Your task to perform on an android device: toggle javascript in the chrome app Image 0: 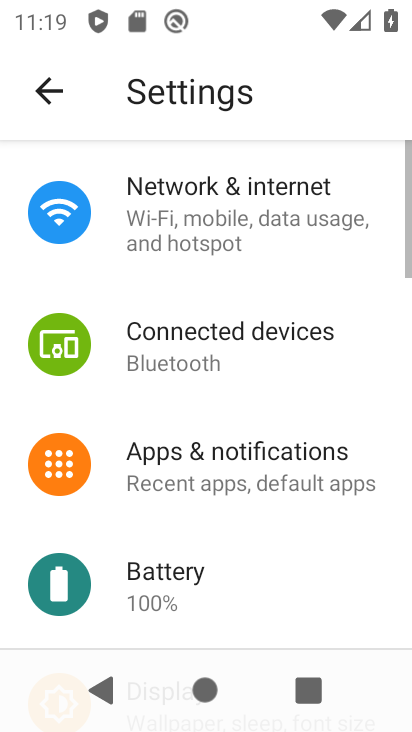
Step 0: press home button
Your task to perform on an android device: toggle javascript in the chrome app Image 1: 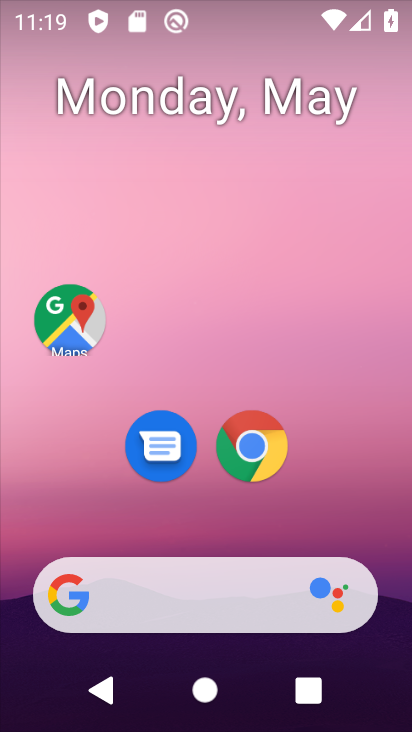
Step 1: click (251, 445)
Your task to perform on an android device: toggle javascript in the chrome app Image 2: 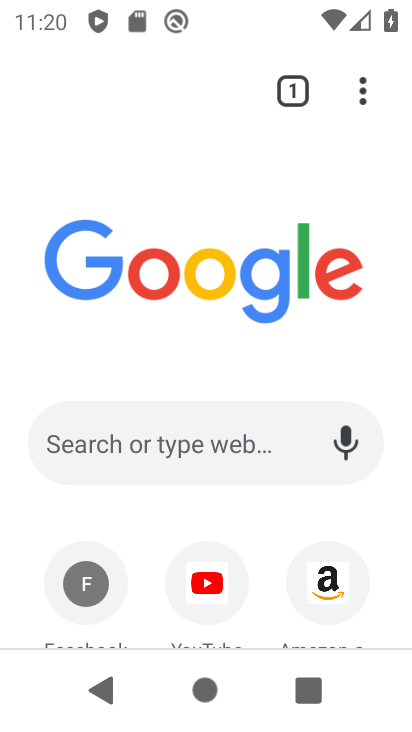
Step 2: click (363, 81)
Your task to perform on an android device: toggle javascript in the chrome app Image 3: 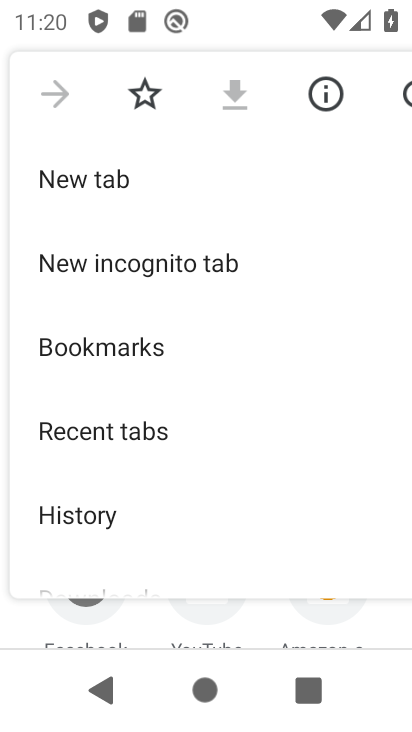
Step 3: drag from (220, 463) to (163, 173)
Your task to perform on an android device: toggle javascript in the chrome app Image 4: 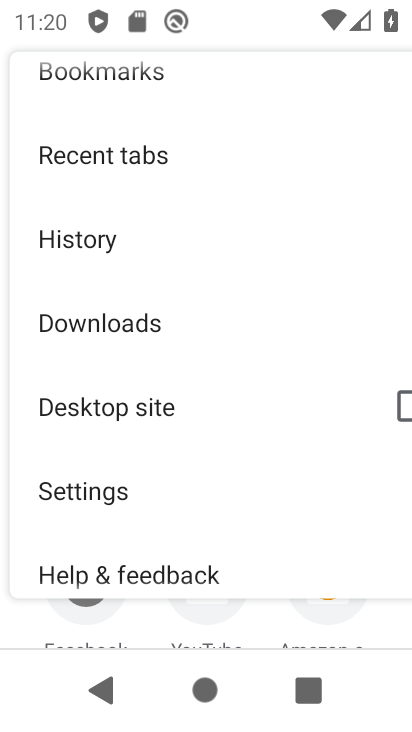
Step 4: click (99, 485)
Your task to perform on an android device: toggle javascript in the chrome app Image 5: 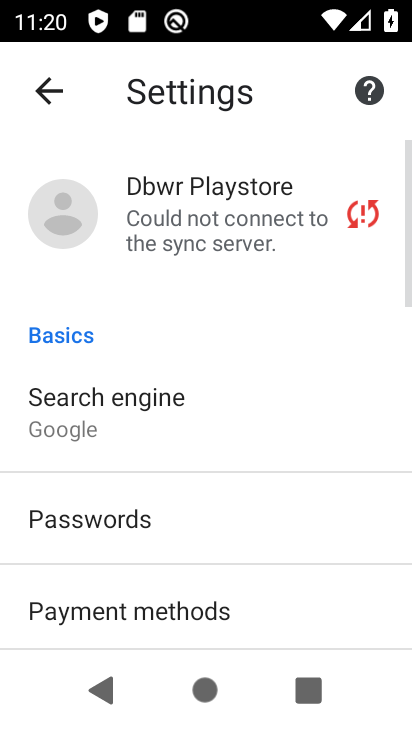
Step 5: drag from (229, 481) to (146, 101)
Your task to perform on an android device: toggle javascript in the chrome app Image 6: 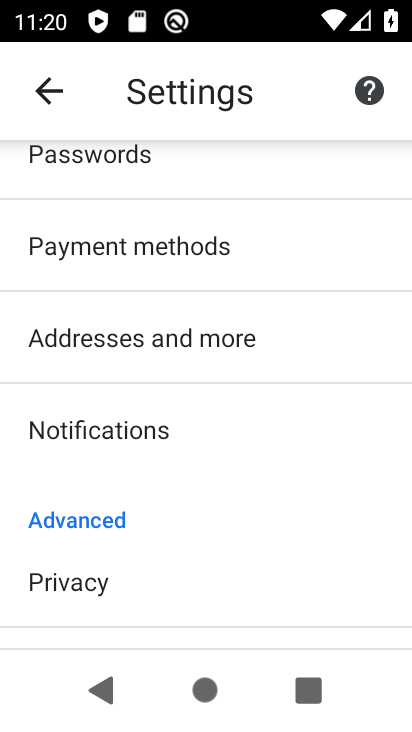
Step 6: drag from (251, 523) to (208, 319)
Your task to perform on an android device: toggle javascript in the chrome app Image 7: 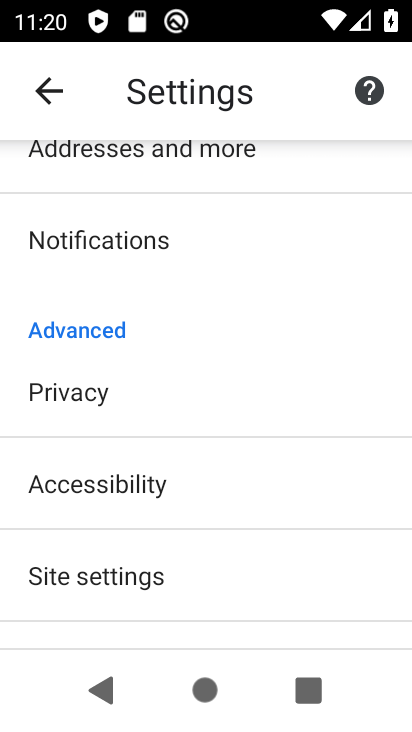
Step 7: drag from (197, 466) to (187, 271)
Your task to perform on an android device: toggle javascript in the chrome app Image 8: 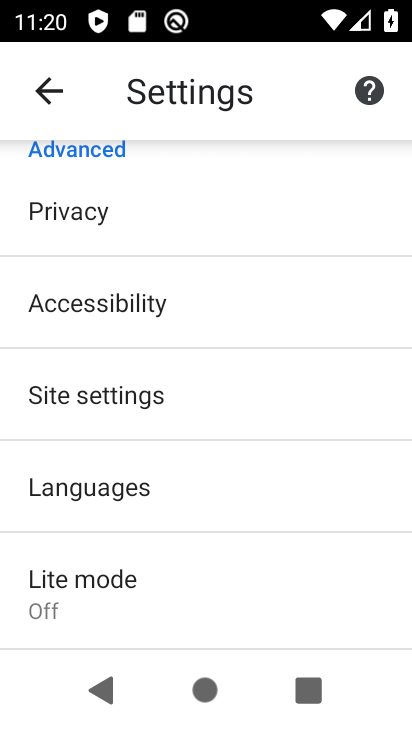
Step 8: drag from (206, 497) to (156, 298)
Your task to perform on an android device: toggle javascript in the chrome app Image 9: 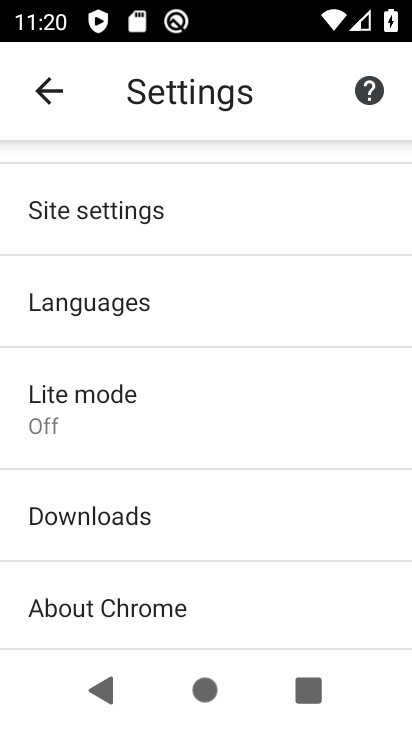
Step 9: click (105, 206)
Your task to perform on an android device: toggle javascript in the chrome app Image 10: 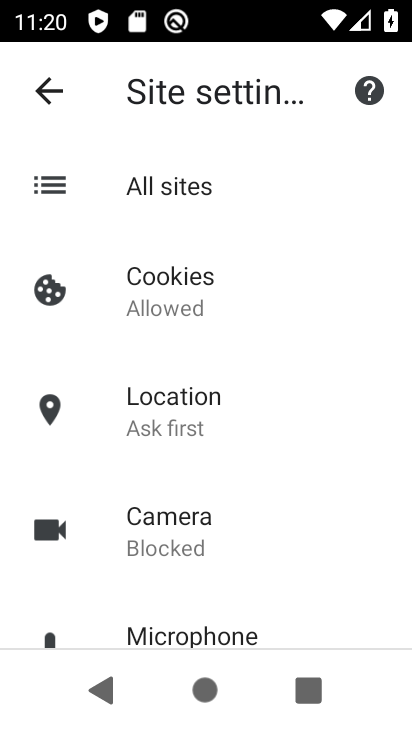
Step 10: drag from (271, 479) to (218, 141)
Your task to perform on an android device: toggle javascript in the chrome app Image 11: 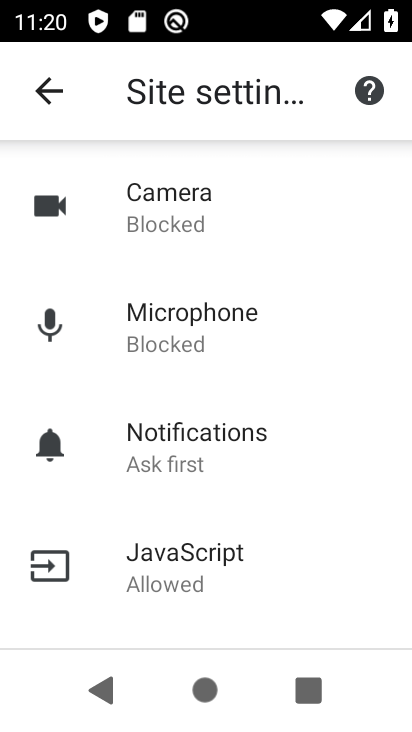
Step 11: drag from (248, 556) to (236, 229)
Your task to perform on an android device: toggle javascript in the chrome app Image 12: 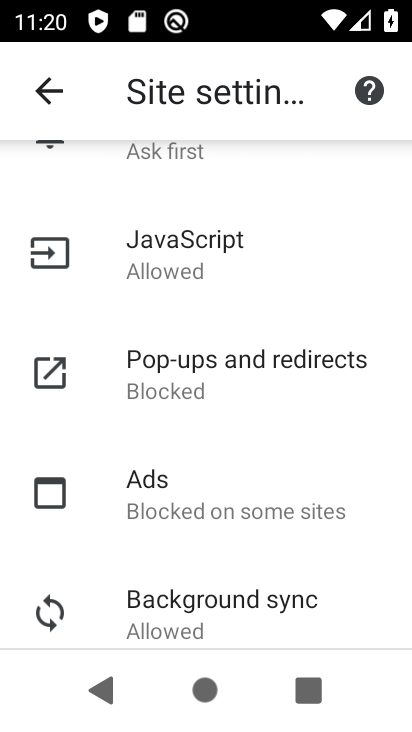
Step 12: click (203, 238)
Your task to perform on an android device: toggle javascript in the chrome app Image 13: 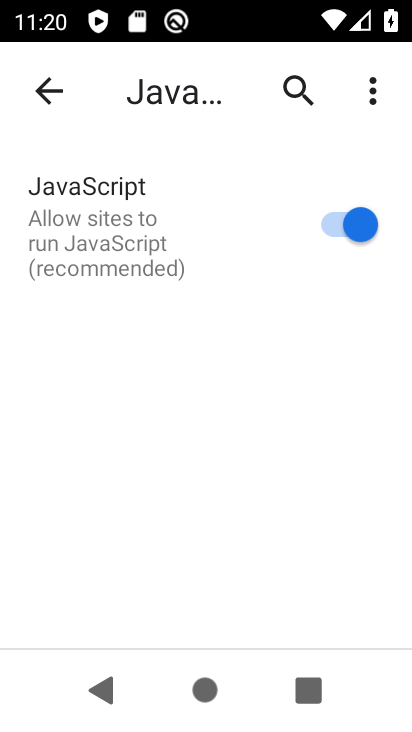
Step 13: click (352, 211)
Your task to perform on an android device: toggle javascript in the chrome app Image 14: 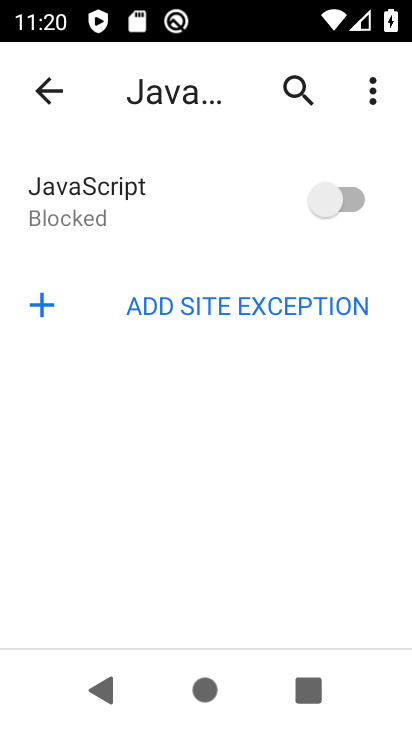
Step 14: task complete